Your task to perform on an android device: open the mobile data screen to see how much data has been used Image 0: 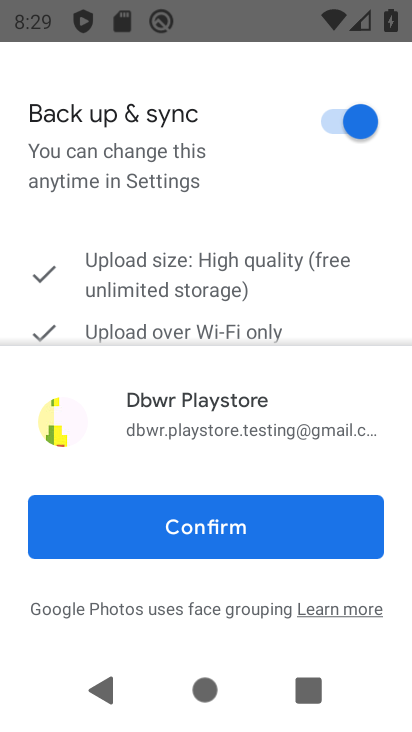
Step 0: press home button
Your task to perform on an android device: open the mobile data screen to see how much data has been used Image 1: 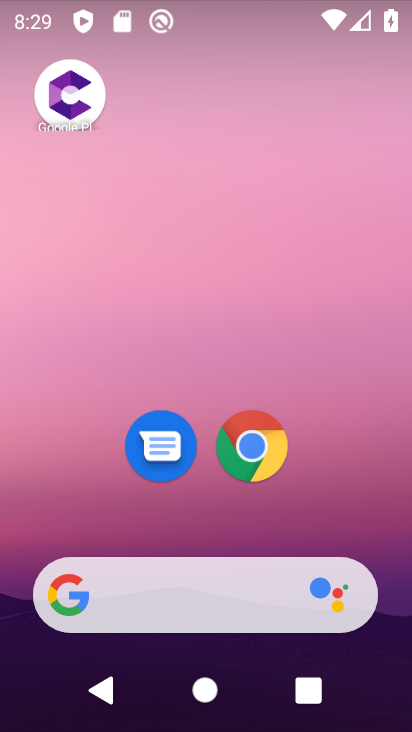
Step 1: drag from (401, 614) to (338, 208)
Your task to perform on an android device: open the mobile data screen to see how much data has been used Image 2: 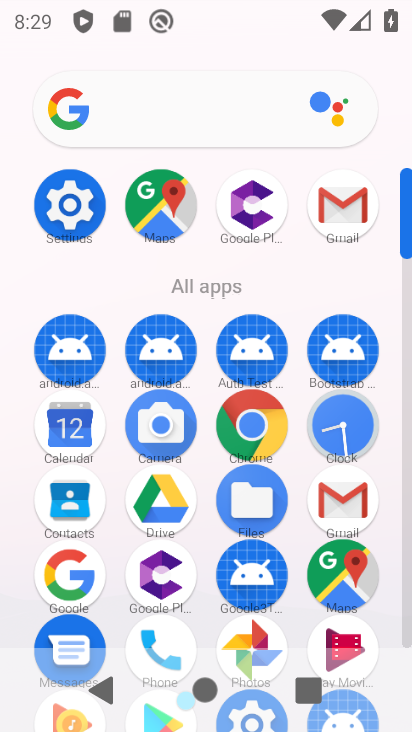
Step 2: click (407, 633)
Your task to perform on an android device: open the mobile data screen to see how much data has been used Image 3: 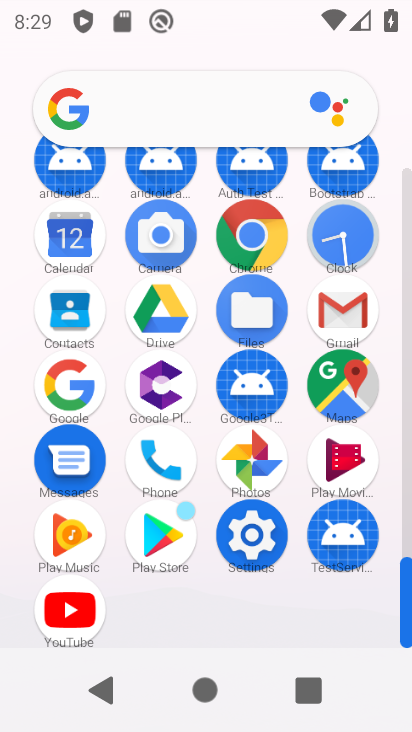
Step 3: click (253, 536)
Your task to perform on an android device: open the mobile data screen to see how much data has been used Image 4: 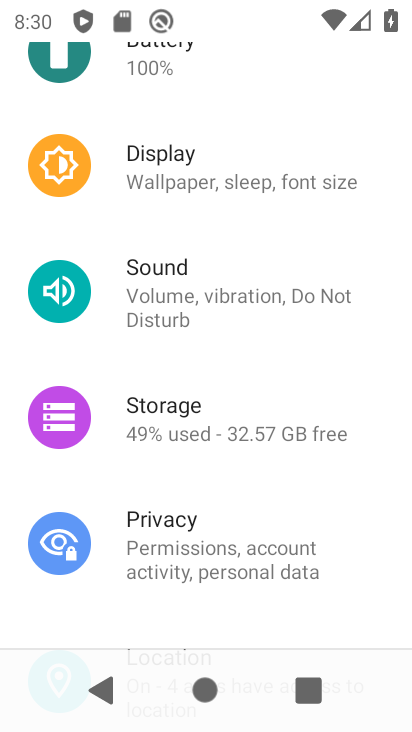
Step 4: drag from (361, 142) to (380, 472)
Your task to perform on an android device: open the mobile data screen to see how much data has been used Image 5: 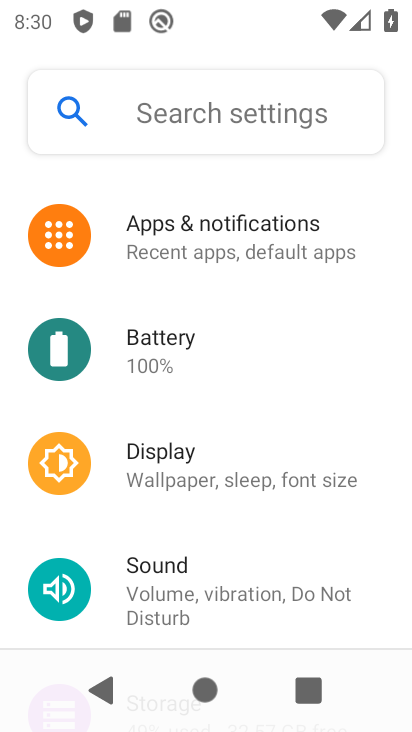
Step 5: drag from (340, 212) to (335, 528)
Your task to perform on an android device: open the mobile data screen to see how much data has been used Image 6: 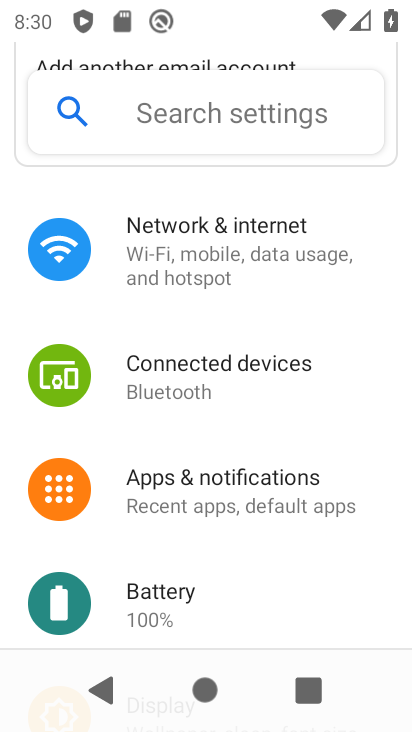
Step 6: click (160, 241)
Your task to perform on an android device: open the mobile data screen to see how much data has been used Image 7: 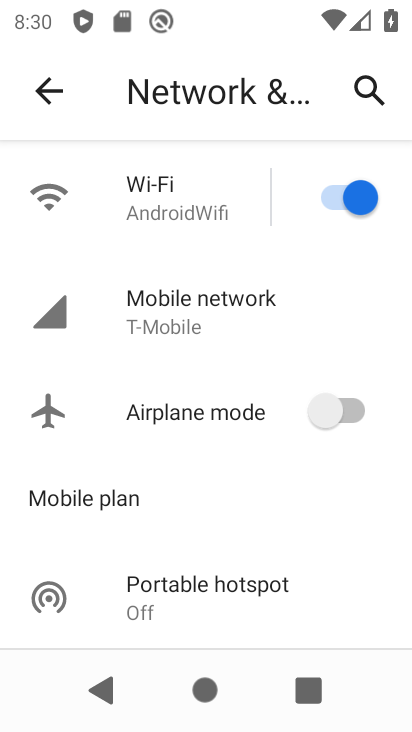
Step 7: click (165, 302)
Your task to perform on an android device: open the mobile data screen to see how much data has been used Image 8: 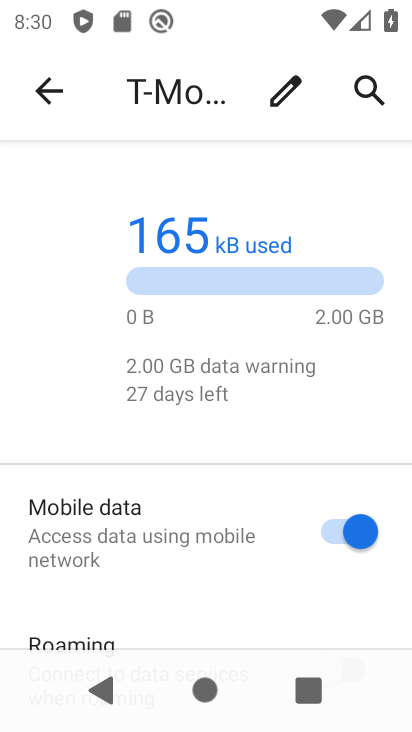
Step 8: task complete